Your task to perform on an android device: How do I get to the nearest Sprint Store? Image 0: 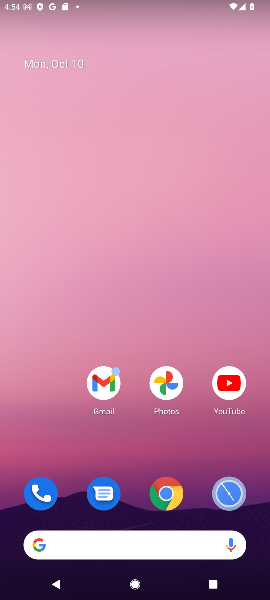
Step 0: click (159, 554)
Your task to perform on an android device: How do I get to the nearest Sprint Store? Image 1: 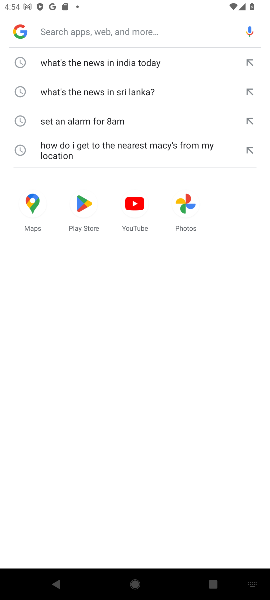
Step 1: type "How do I get to the nearest Sprint Store?"
Your task to perform on an android device: How do I get to the nearest Sprint Store? Image 2: 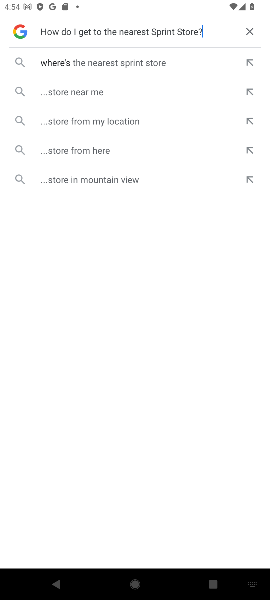
Step 2: click (119, 55)
Your task to perform on an android device: How do I get to the nearest Sprint Store? Image 3: 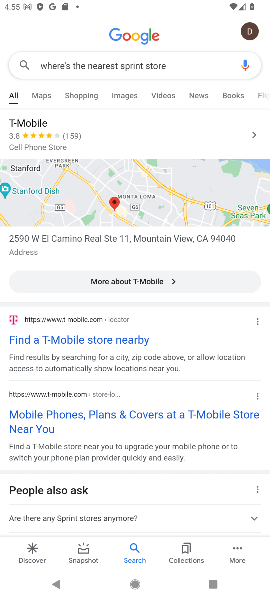
Step 3: task complete